Your task to perform on an android device: Go to Maps Image 0: 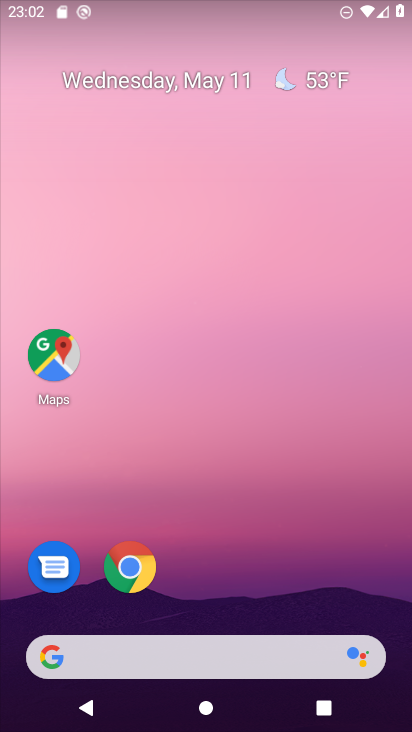
Step 0: click (63, 372)
Your task to perform on an android device: Go to Maps Image 1: 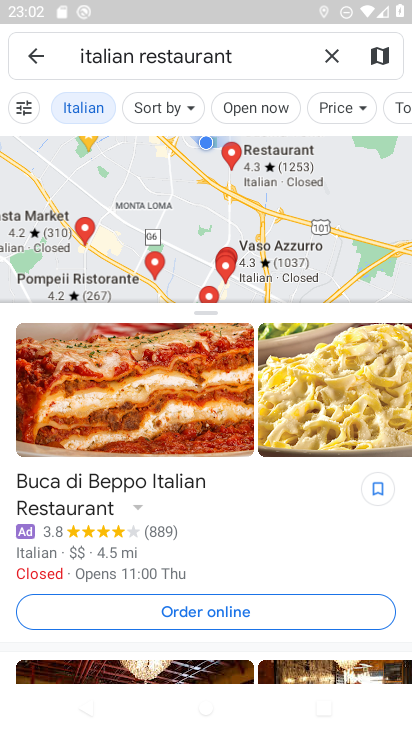
Step 1: task complete